Your task to perform on an android device: See recent photos Image 0: 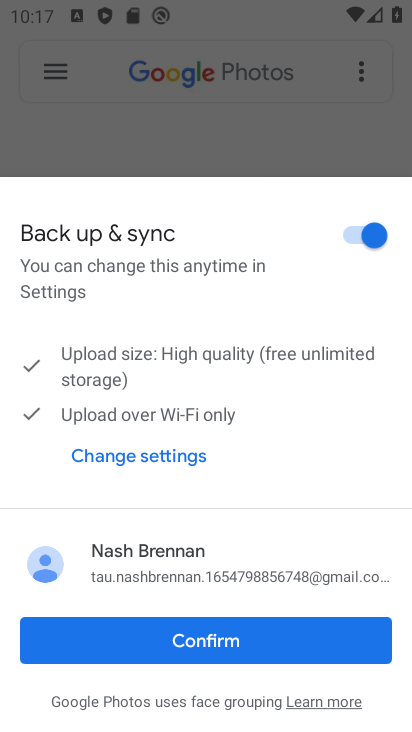
Step 0: click (308, 643)
Your task to perform on an android device: See recent photos Image 1: 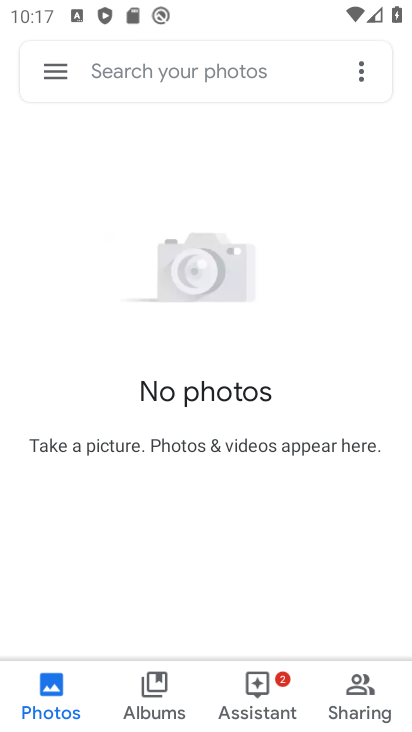
Step 1: task complete